Your task to perform on an android device: Open Google Chrome and open the bookmarks view Image 0: 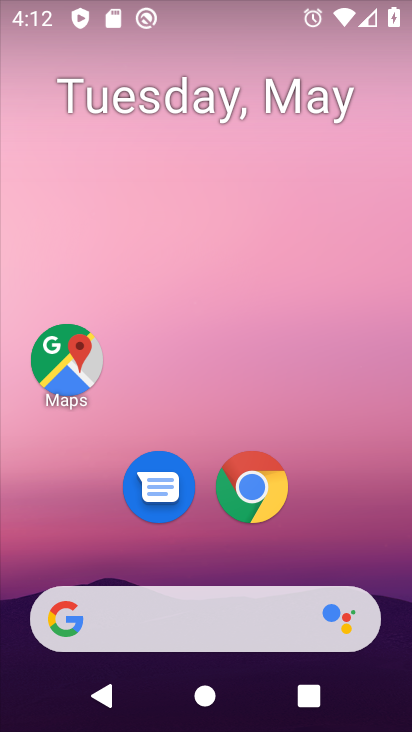
Step 0: click (248, 489)
Your task to perform on an android device: Open Google Chrome and open the bookmarks view Image 1: 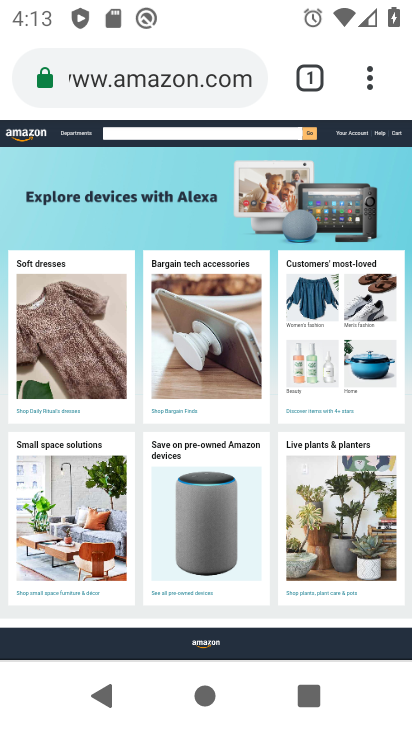
Step 1: task complete